Your task to perform on an android device: Show me recent news Image 0: 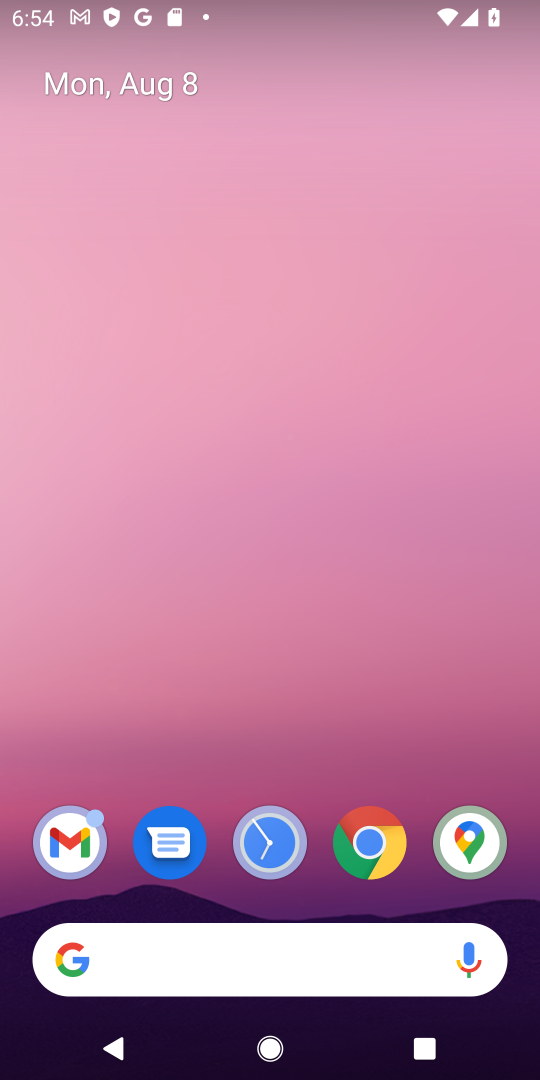
Step 0: drag from (333, 603) to (416, 25)
Your task to perform on an android device: Show me recent news Image 1: 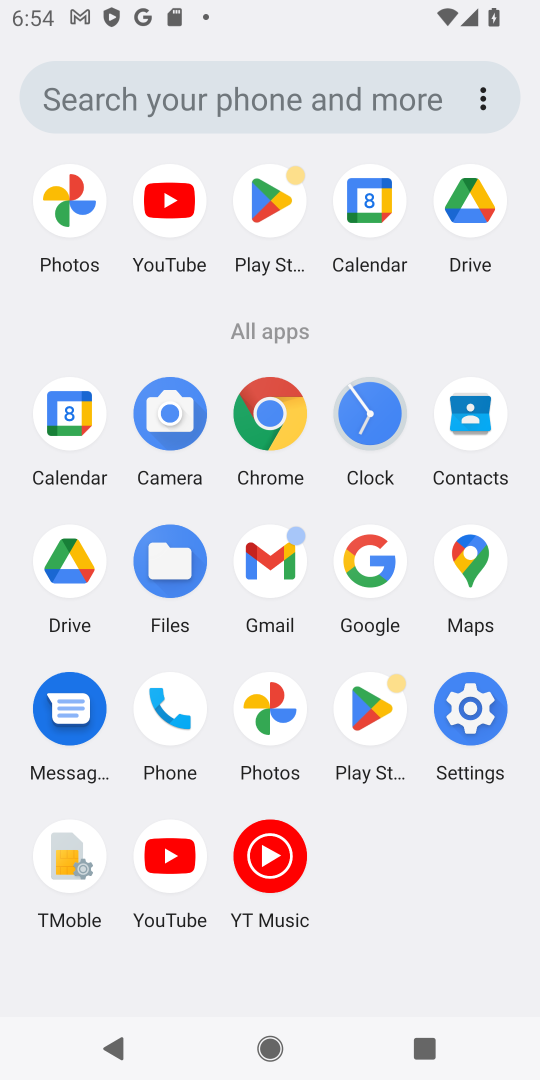
Step 1: click (259, 413)
Your task to perform on an android device: Show me recent news Image 2: 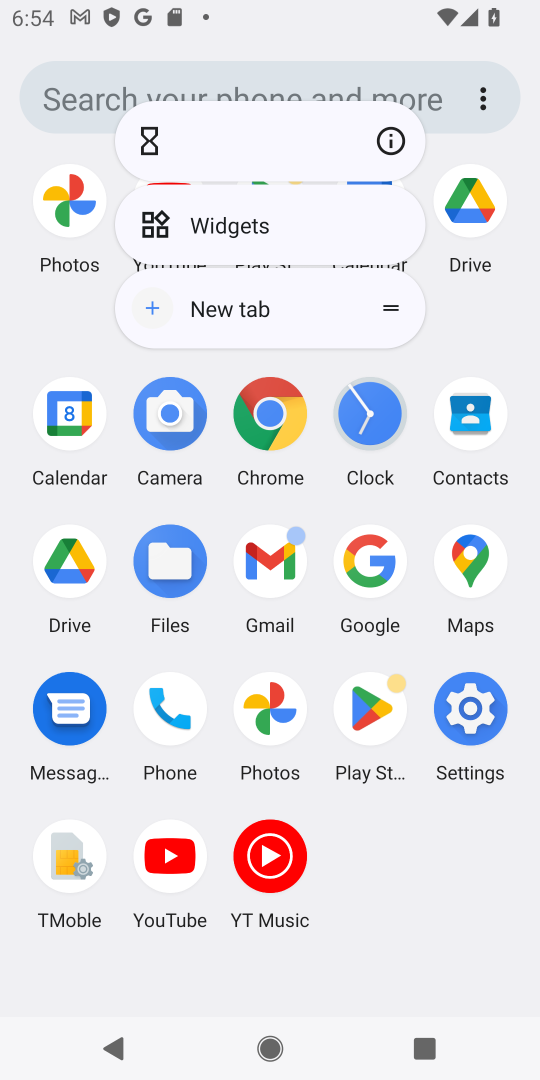
Step 2: click (281, 406)
Your task to perform on an android device: Show me recent news Image 3: 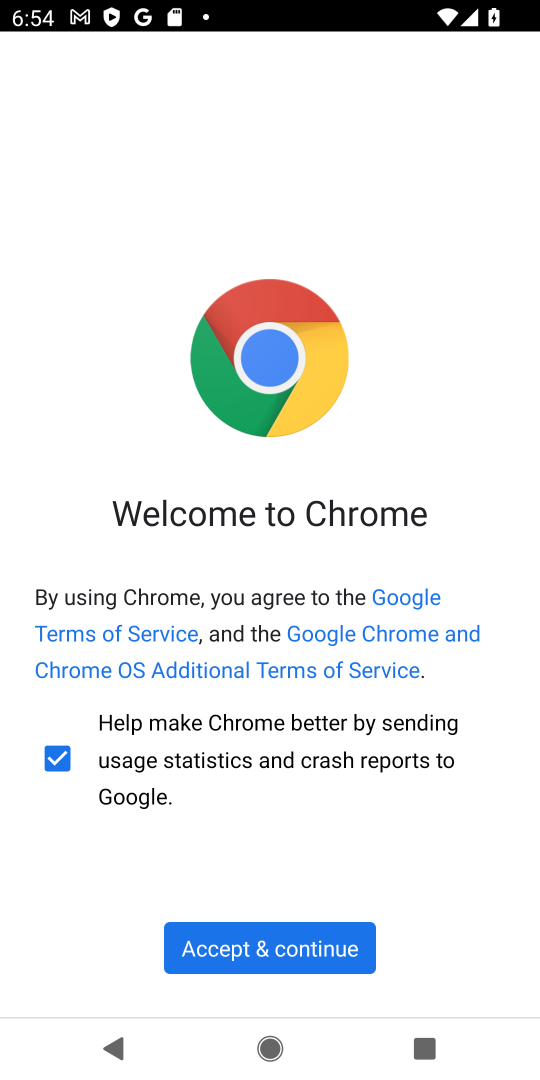
Step 3: click (283, 938)
Your task to perform on an android device: Show me recent news Image 4: 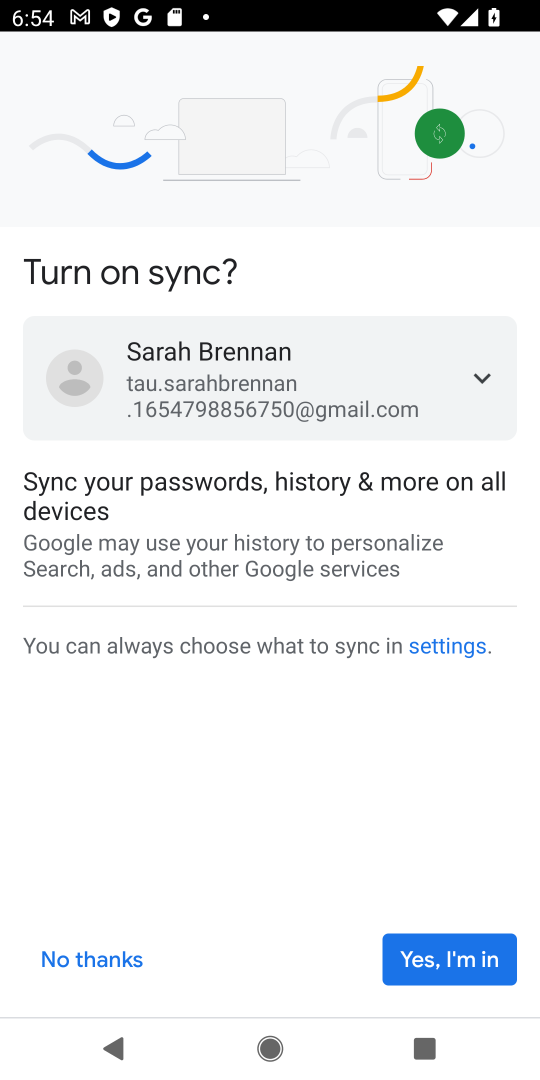
Step 4: click (404, 956)
Your task to perform on an android device: Show me recent news Image 5: 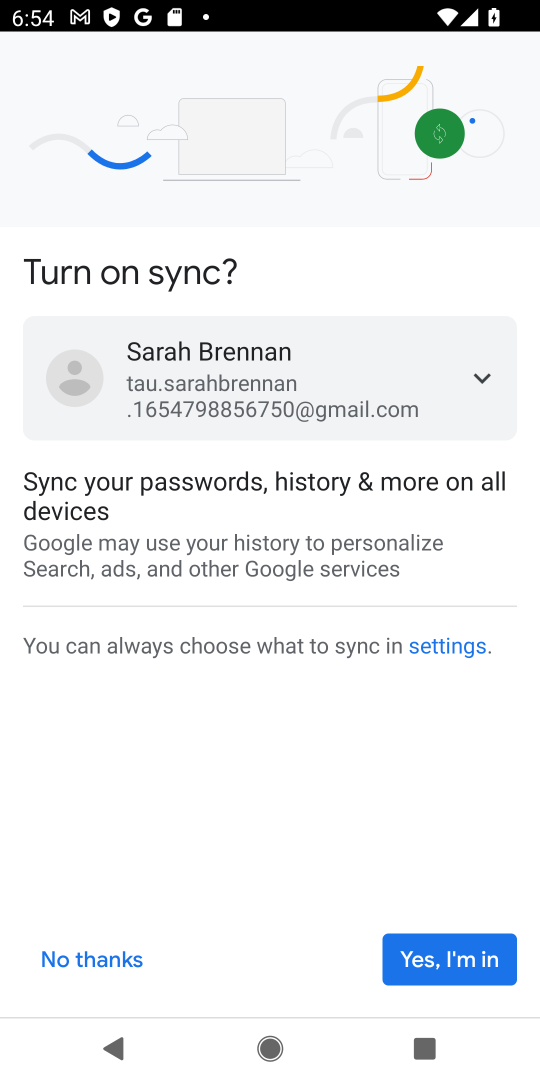
Step 5: click (404, 956)
Your task to perform on an android device: Show me recent news Image 6: 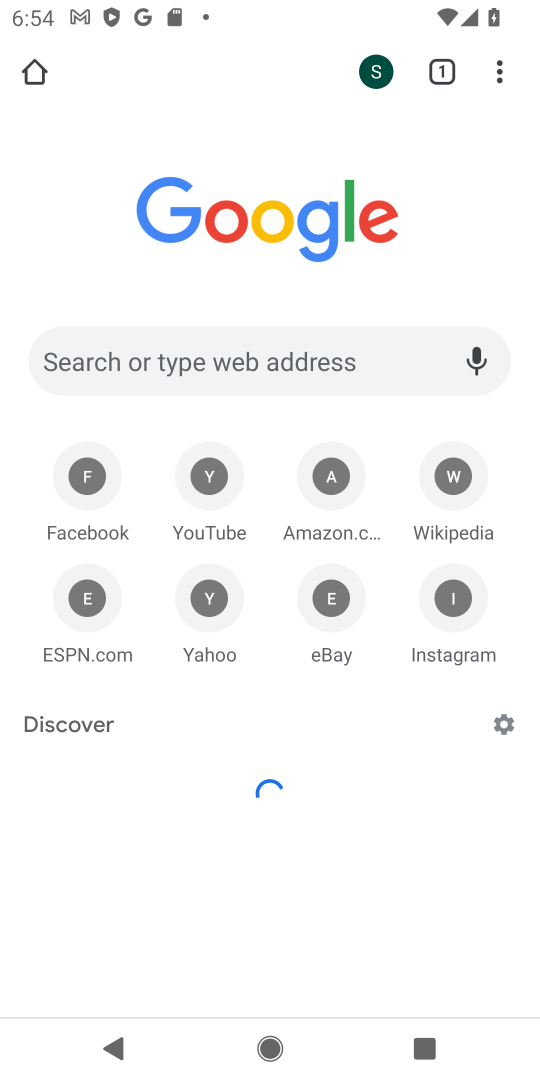
Step 6: click (285, 350)
Your task to perform on an android device: Show me recent news Image 7: 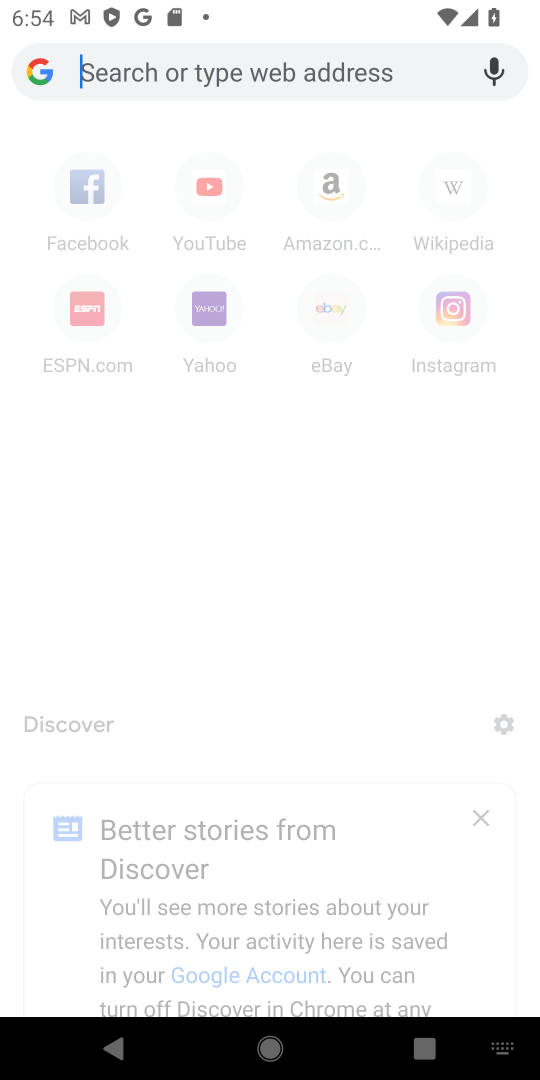
Step 7: type "Show me recent news"
Your task to perform on an android device: Show me recent news Image 8: 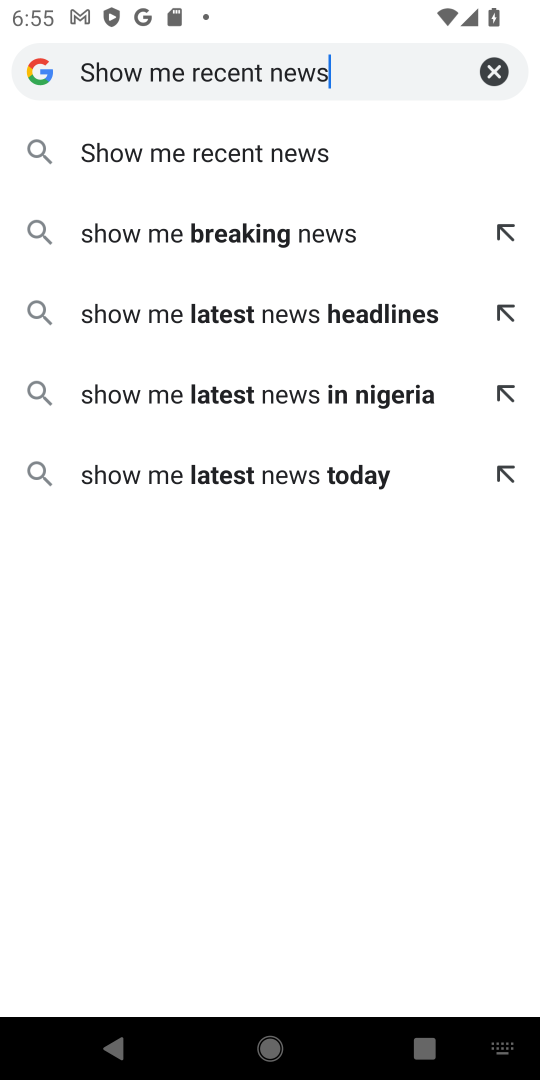
Step 8: click (145, 146)
Your task to perform on an android device: Show me recent news Image 9: 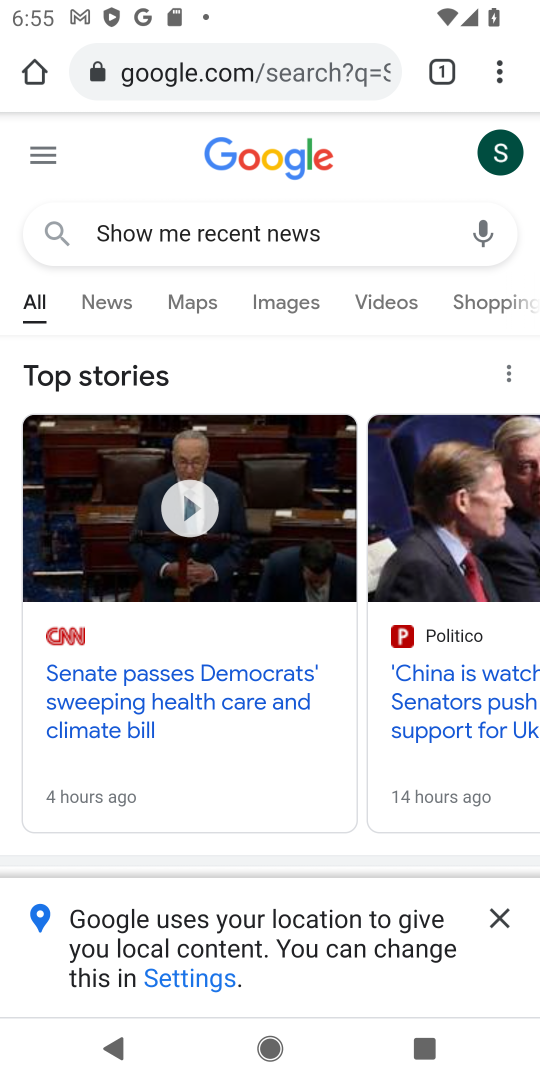
Step 9: click (102, 295)
Your task to perform on an android device: Show me recent news Image 10: 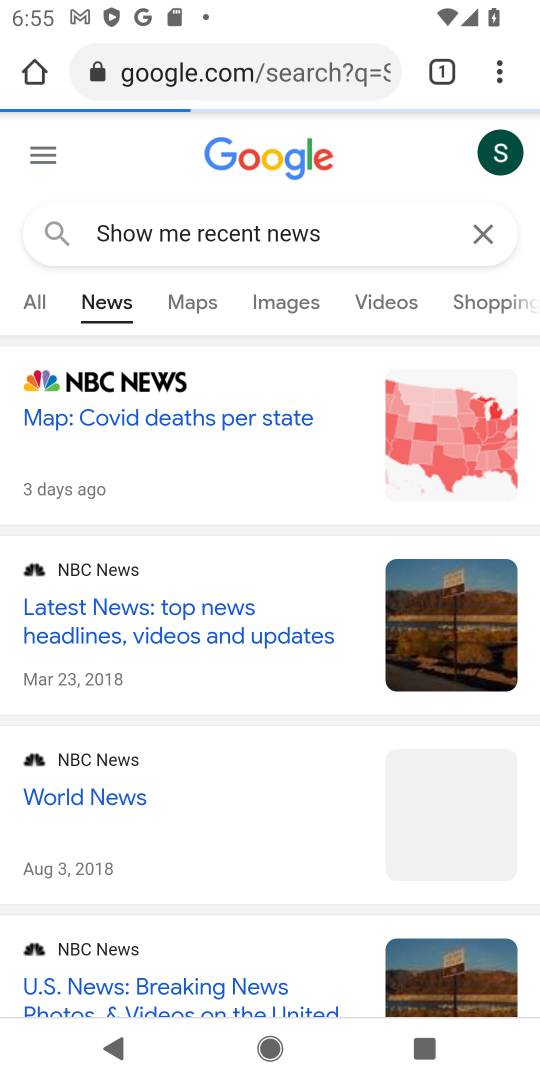
Step 10: task complete